Your task to perform on an android device: Show me productivity apps on the Play Store Image 0: 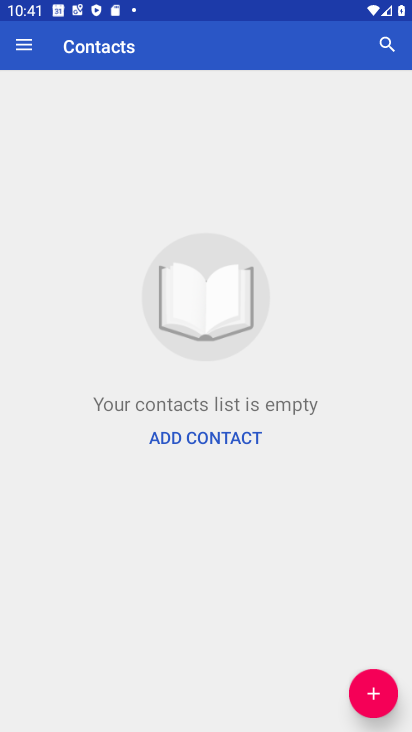
Step 0: press home button
Your task to perform on an android device: Show me productivity apps on the Play Store Image 1: 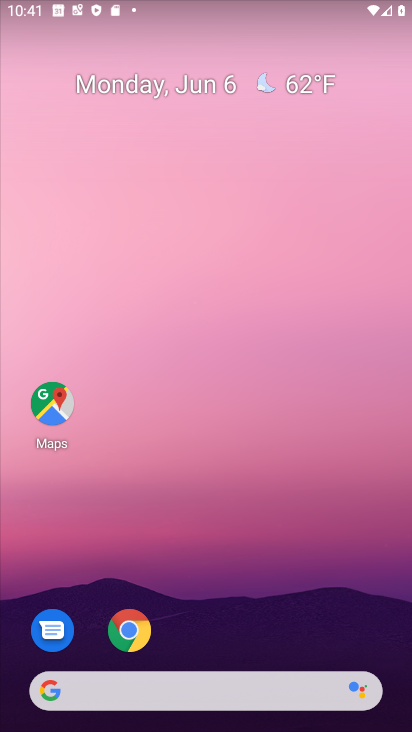
Step 1: drag from (360, 604) to (358, 86)
Your task to perform on an android device: Show me productivity apps on the Play Store Image 2: 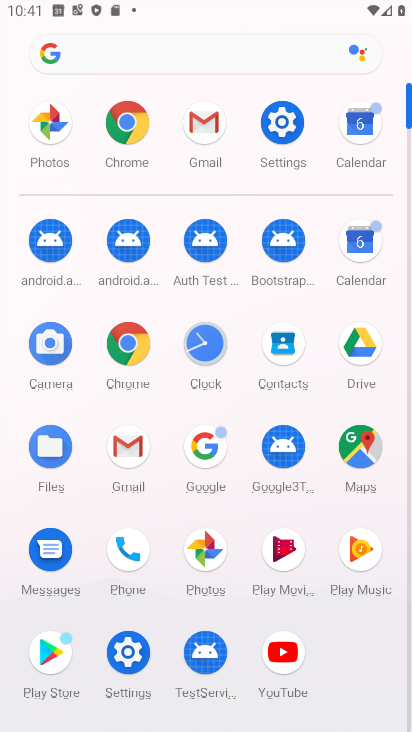
Step 2: click (38, 668)
Your task to perform on an android device: Show me productivity apps on the Play Store Image 3: 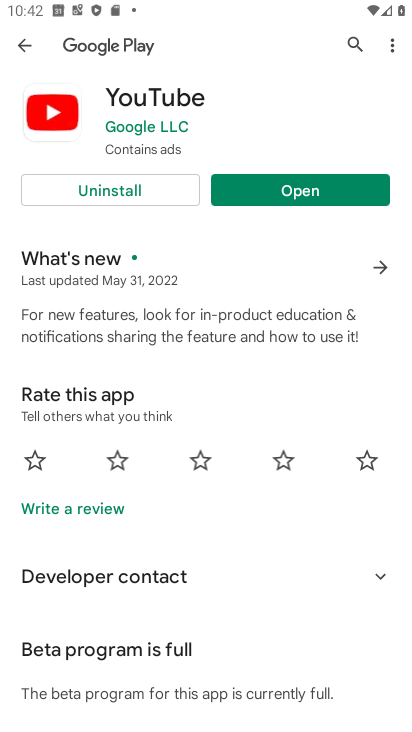
Step 3: drag from (306, 633) to (337, 307)
Your task to perform on an android device: Show me productivity apps on the Play Store Image 4: 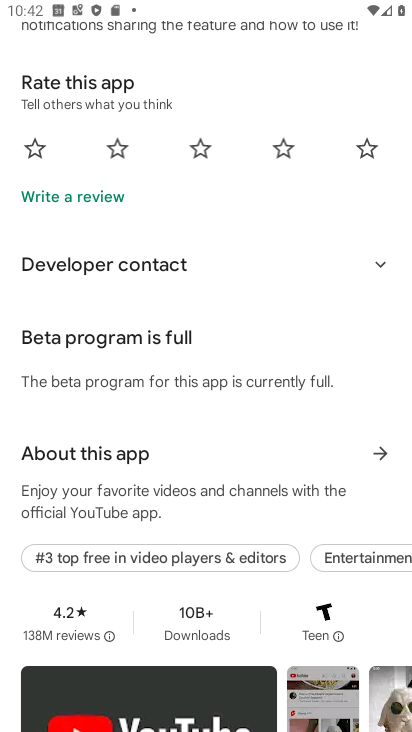
Step 4: drag from (295, 289) to (297, 644)
Your task to perform on an android device: Show me productivity apps on the Play Store Image 5: 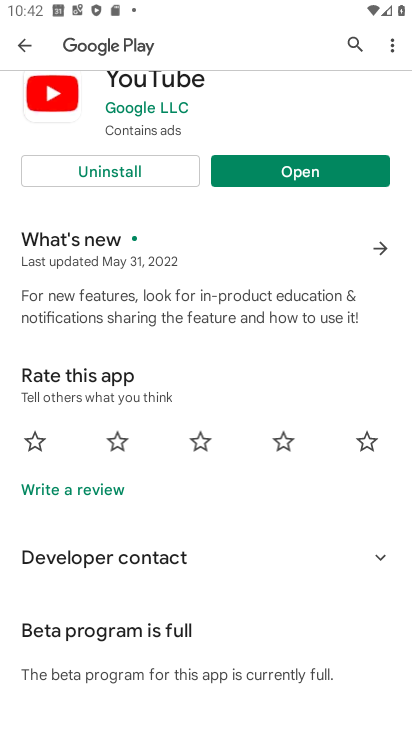
Step 5: click (20, 43)
Your task to perform on an android device: Show me productivity apps on the Play Store Image 6: 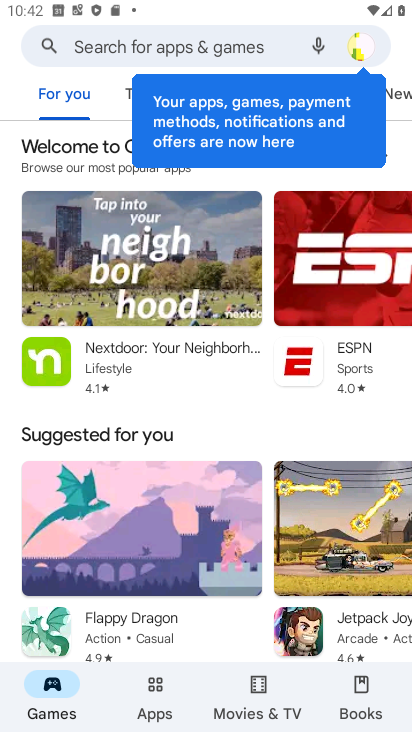
Step 6: drag from (160, 557) to (162, 237)
Your task to perform on an android device: Show me productivity apps on the Play Store Image 7: 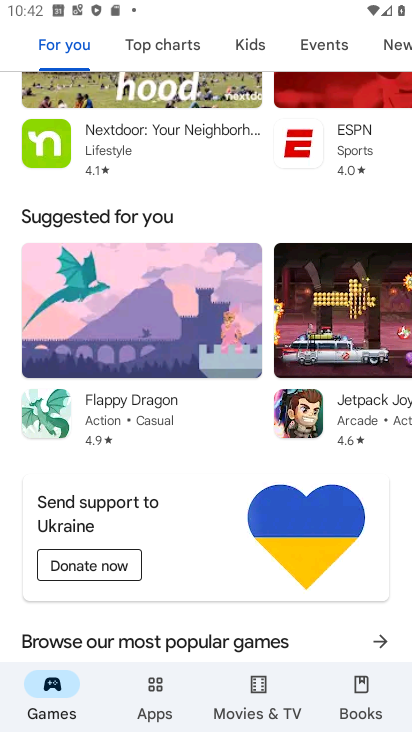
Step 7: click (153, 683)
Your task to perform on an android device: Show me productivity apps on the Play Store Image 8: 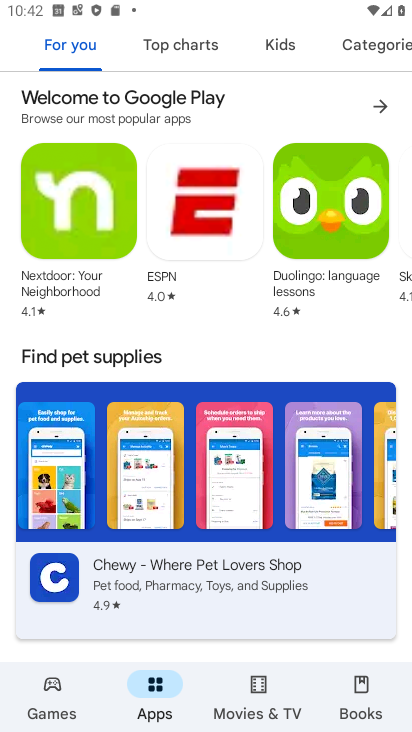
Step 8: click (377, 51)
Your task to perform on an android device: Show me productivity apps on the Play Store Image 9: 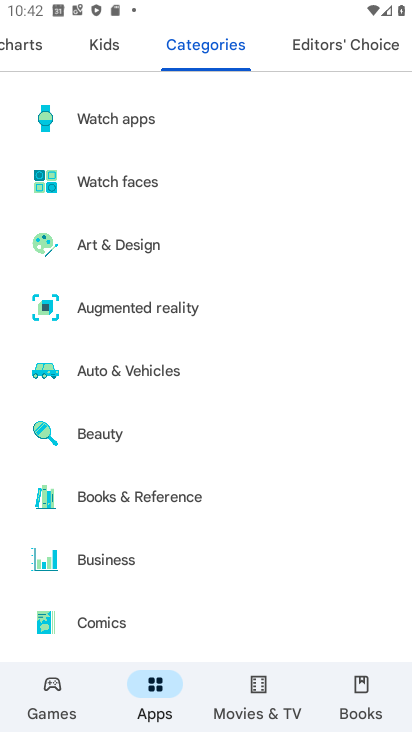
Step 9: drag from (246, 606) to (243, 182)
Your task to perform on an android device: Show me productivity apps on the Play Store Image 10: 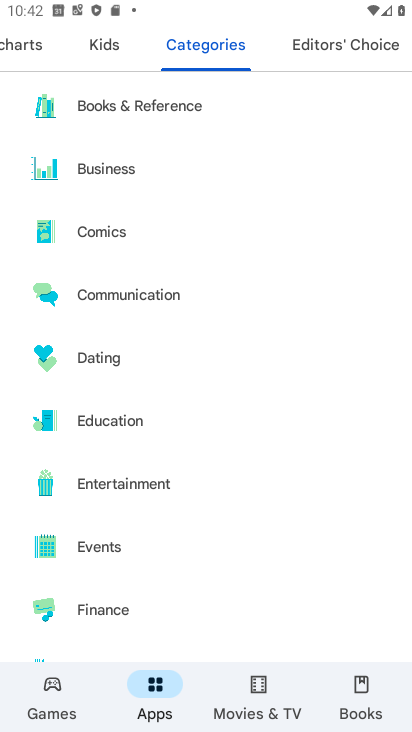
Step 10: drag from (184, 543) to (177, 172)
Your task to perform on an android device: Show me productivity apps on the Play Store Image 11: 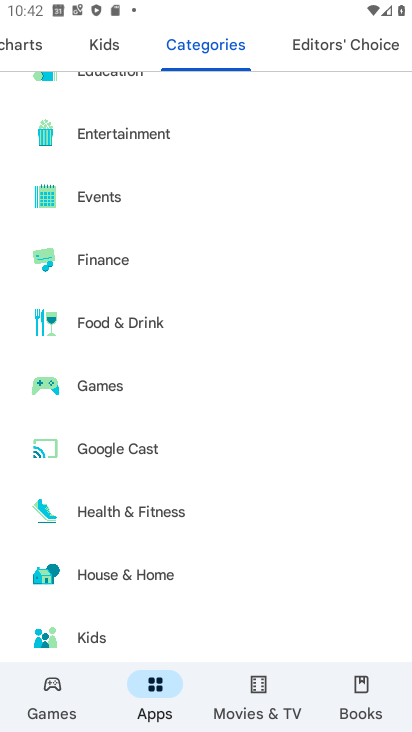
Step 11: drag from (143, 586) to (175, 263)
Your task to perform on an android device: Show me productivity apps on the Play Store Image 12: 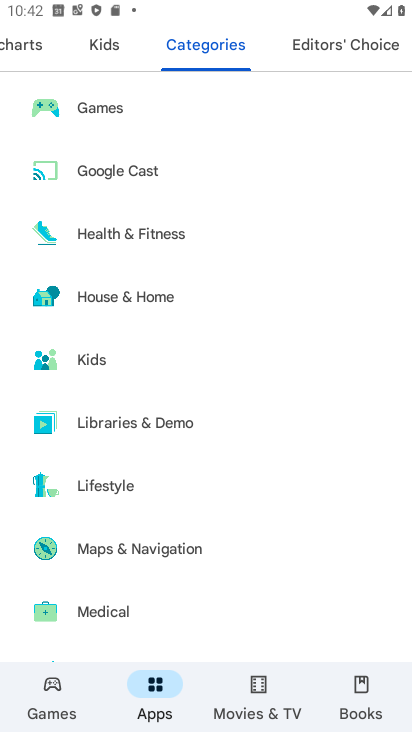
Step 12: drag from (153, 575) to (200, 237)
Your task to perform on an android device: Show me productivity apps on the Play Store Image 13: 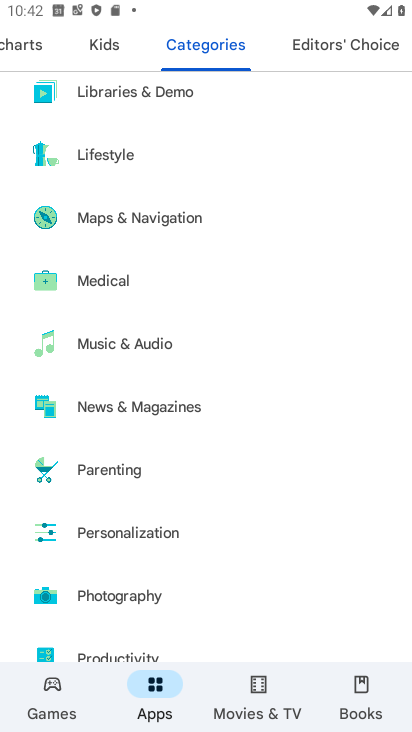
Step 13: drag from (171, 583) to (197, 299)
Your task to perform on an android device: Show me productivity apps on the Play Store Image 14: 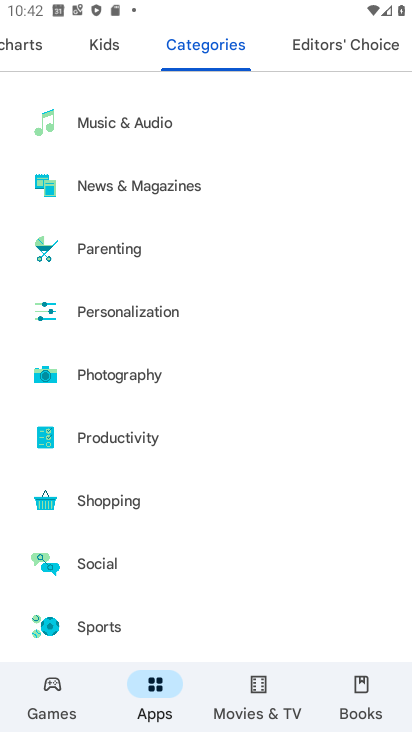
Step 14: click (114, 436)
Your task to perform on an android device: Show me productivity apps on the Play Store Image 15: 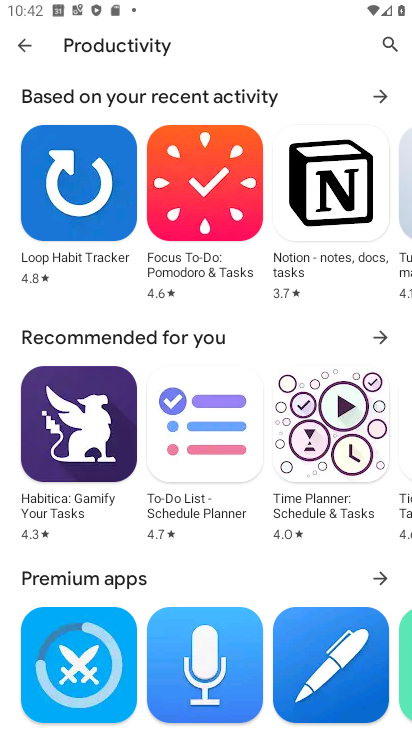
Step 15: task complete